Your task to perform on an android device: all mails in gmail Image 0: 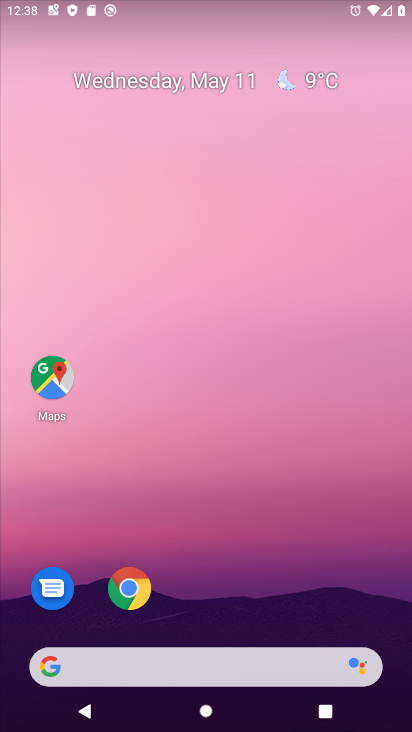
Step 0: drag from (315, 587) to (356, 7)
Your task to perform on an android device: all mails in gmail Image 1: 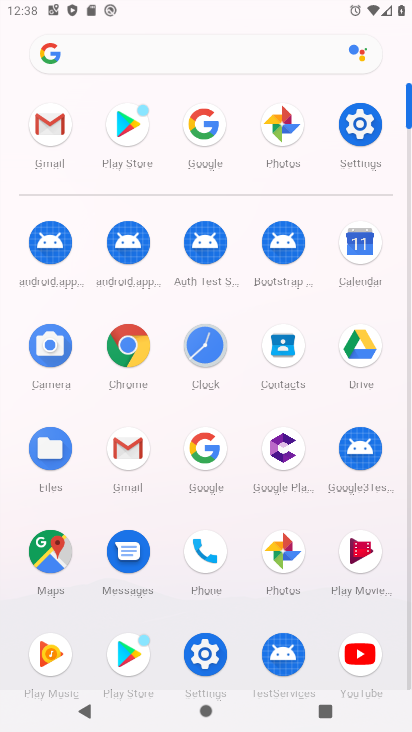
Step 1: click (50, 126)
Your task to perform on an android device: all mails in gmail Image 2: 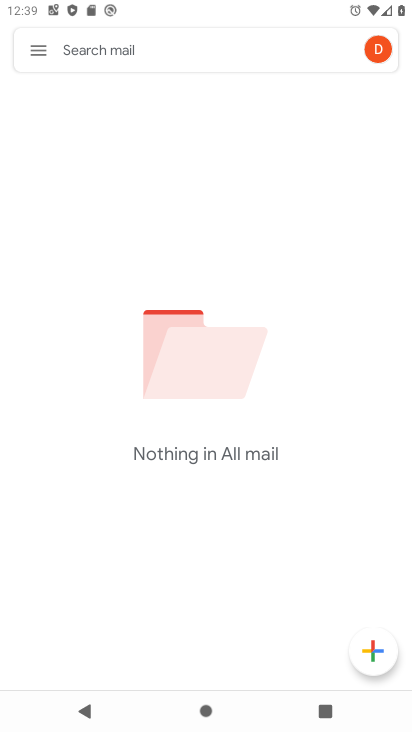
Step 2: task complete